Your task to perform on an android device: change notification settings in the gmail app Image 0: 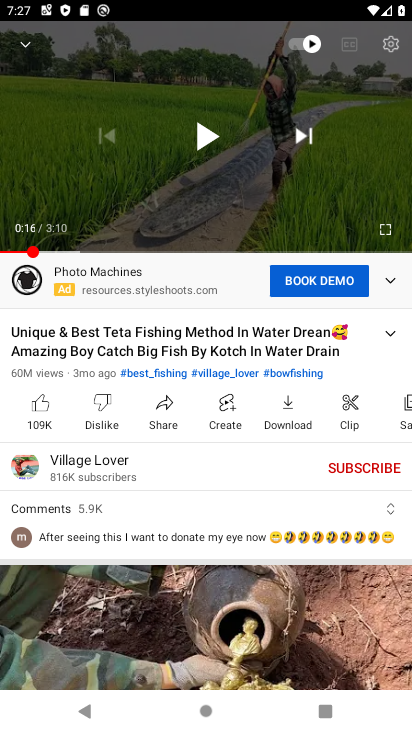
Step 0: press home button
Your task to perform on an android device: change notification settings in the gmail app Image 1: 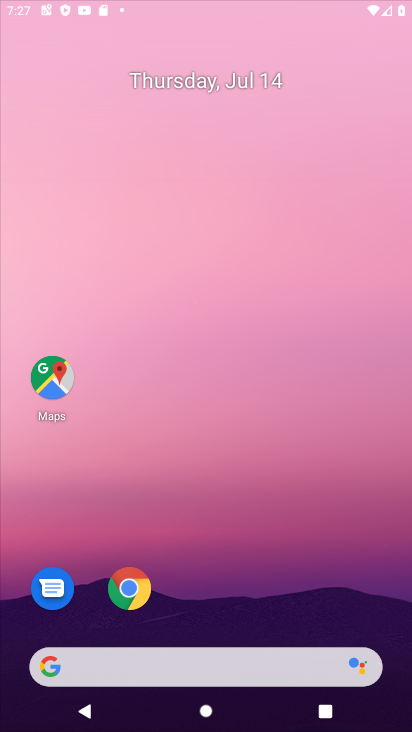
Step 1: drag from (403, 671) to (354, 55)
Your task to perform on an android device: change notification settings in the gmail app Image 2: 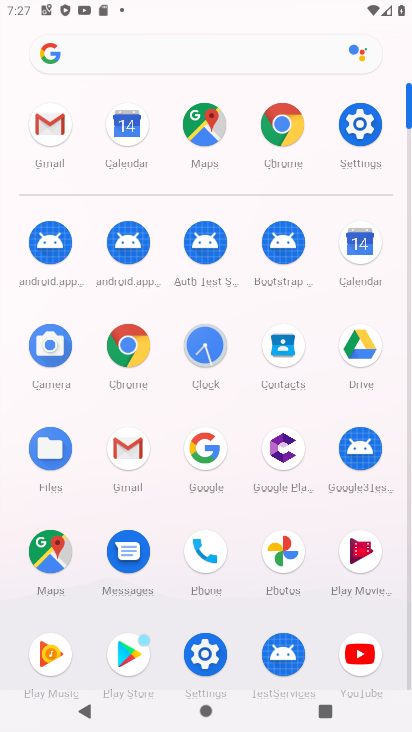
Step 2: click (129, 433)
Your task to perform on an android device: change notification settings in the gmail app Image 3: 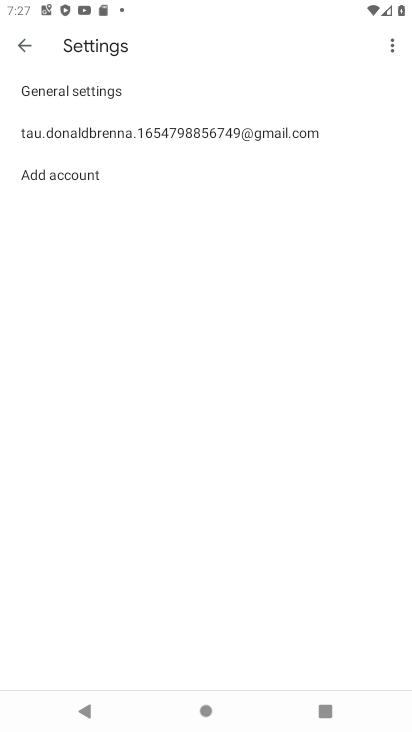
Step 3: click (242, 139)
Your task to perform on an android device: change notification settings in the gmail app Image 4: 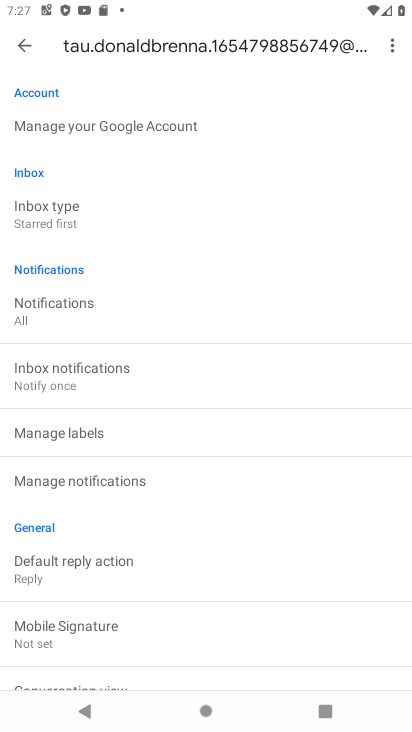
Step 4: click (61, 327)
Your task to perform on an android device: change notification settings in the gmail app Image 5: 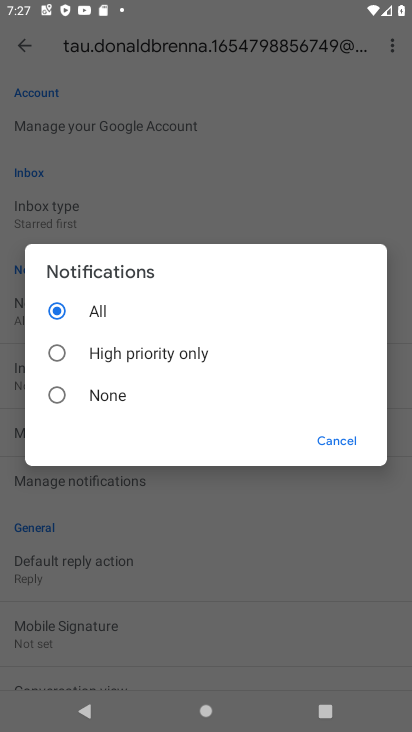
Step 5: click (54, 396)
Your task to perform on an android device: change notification settings in the gmail app Image 6: 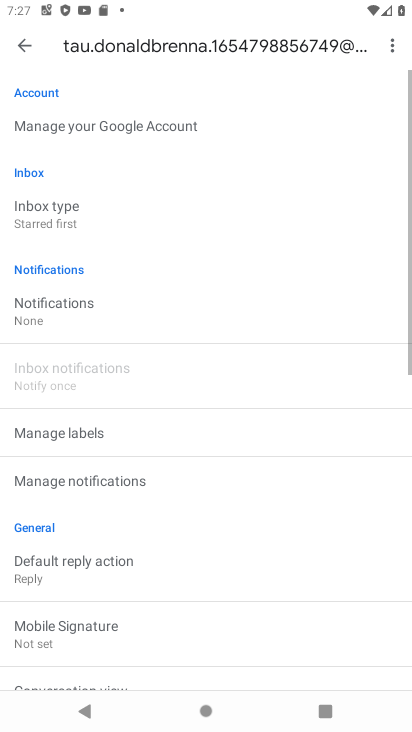
Step 6: task complete